Your task to perform on an android device: uninstall "VLC for Android" Image 0: 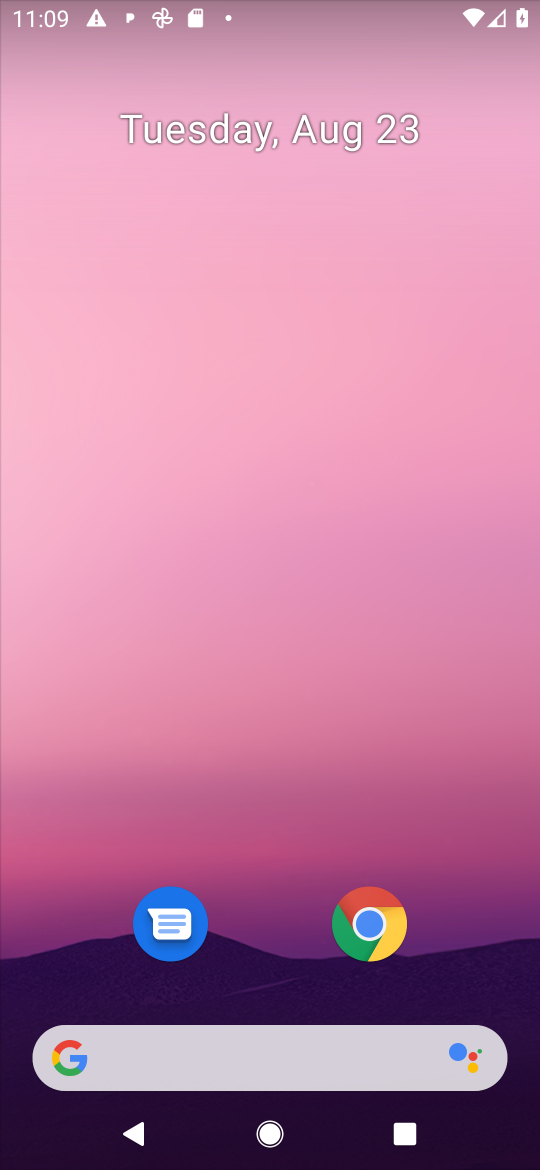
Step 0: press home button
Your task to perform on an android device: uninstall "VLC for Android" Image 1: 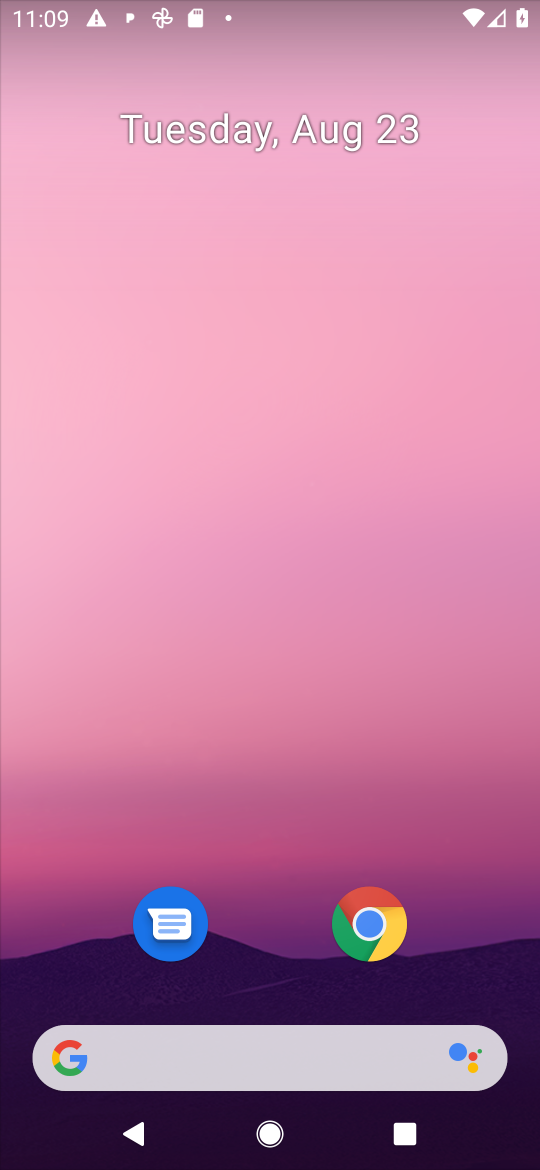
Step 1: drag from (462, 952) to (467, 133)
Your task to perform on an android device: uninstall "VLC for Android" Image 2: 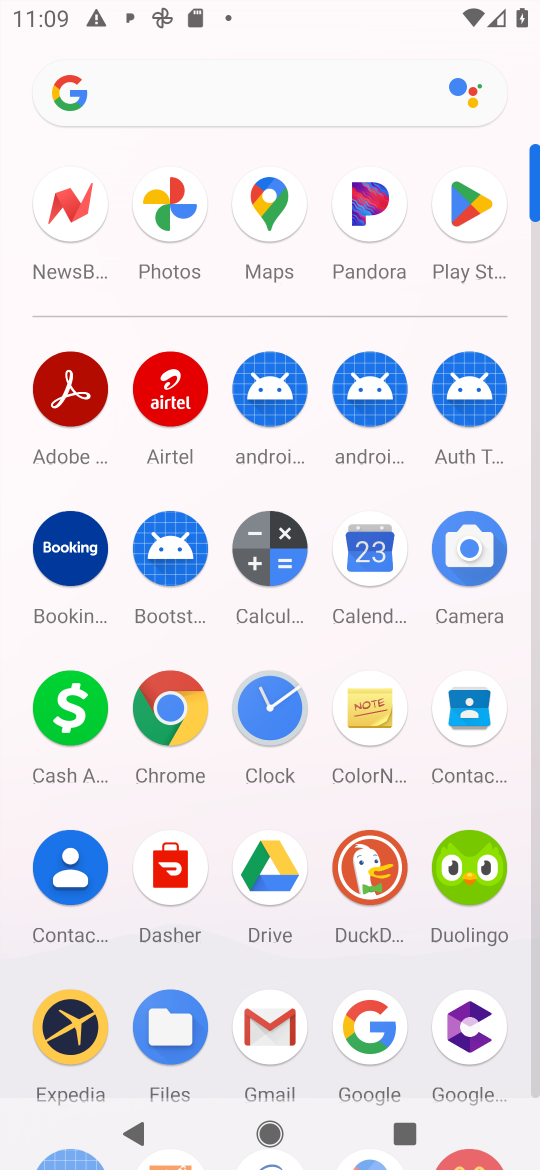
Step 2: click (461, 207)
Your task to perform on an android device: uninstall "VLC for Android" Image 3: 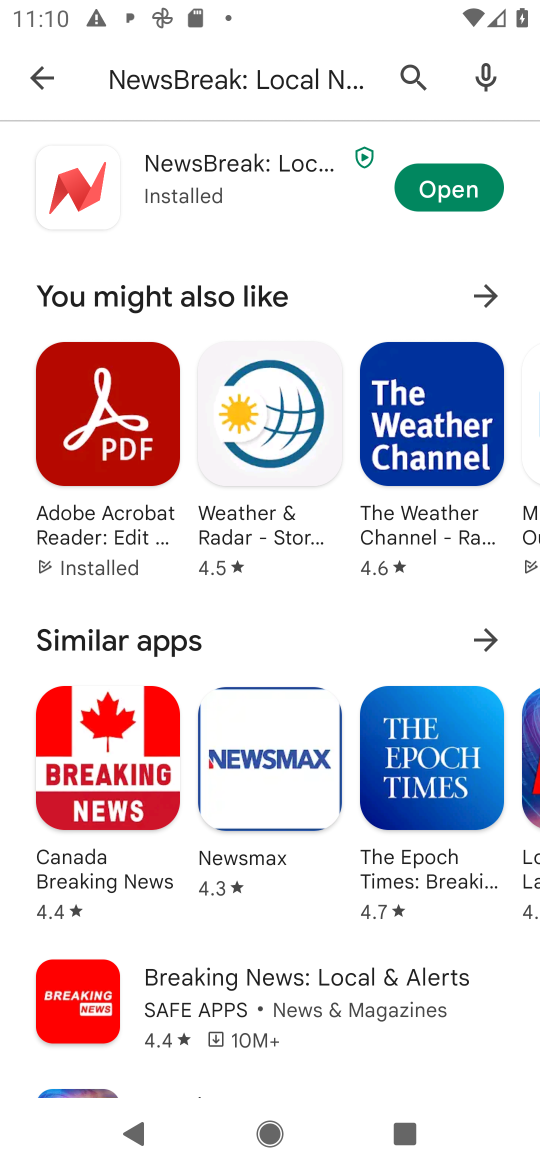
Step 3: press back button
Your task to perform on an android device: uninstall "VLC for Android" Image 4: 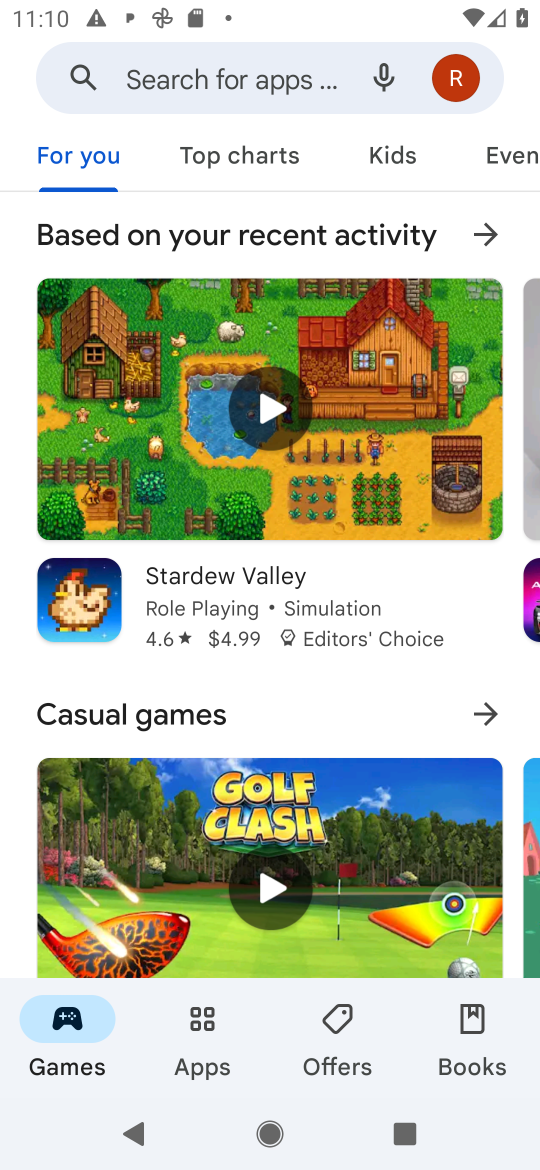
Step 4: click (236, 77)
Your task to perform on an android device: uninstall "VLC for Android" Image 5: 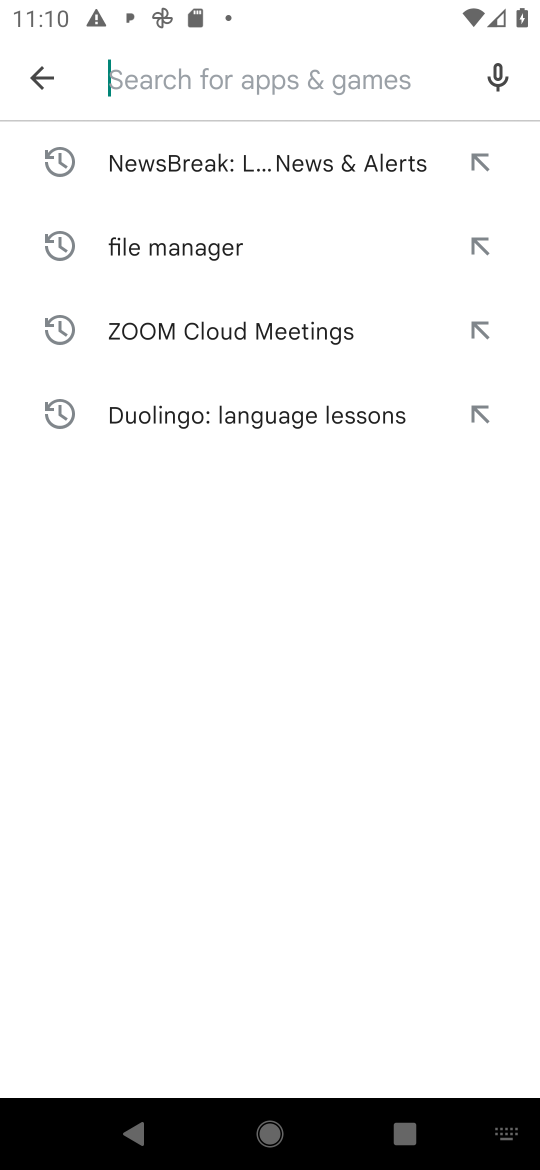
Step 5: press enter
Your task to perform on an android device: uninstall "VLC for Android" Image 6: 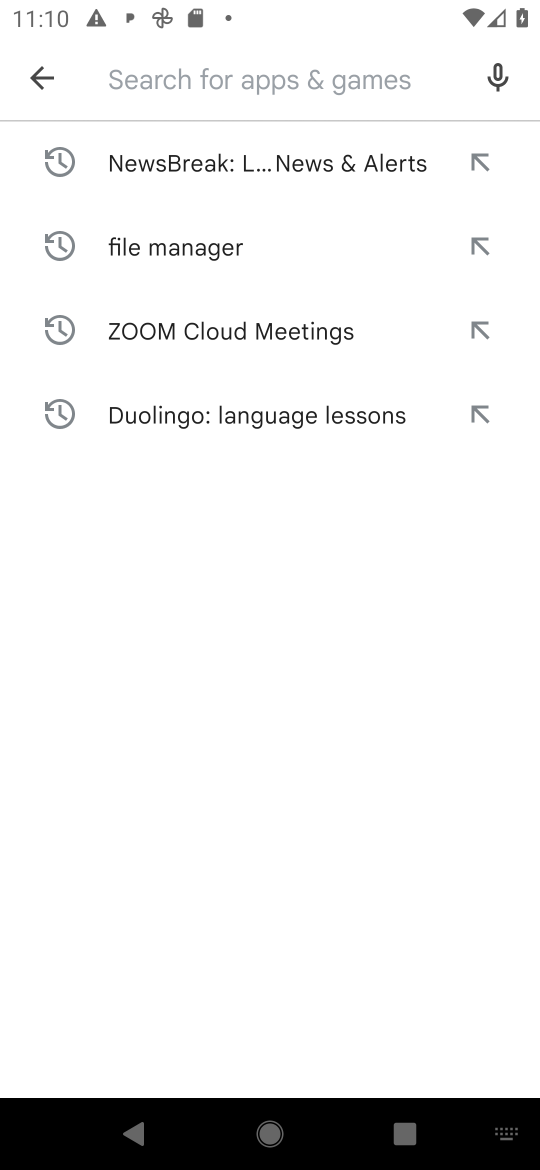
Step 6: type "vlc for android"
Your task to perform on an android device: uninstall "VLC for Android" Image 7: 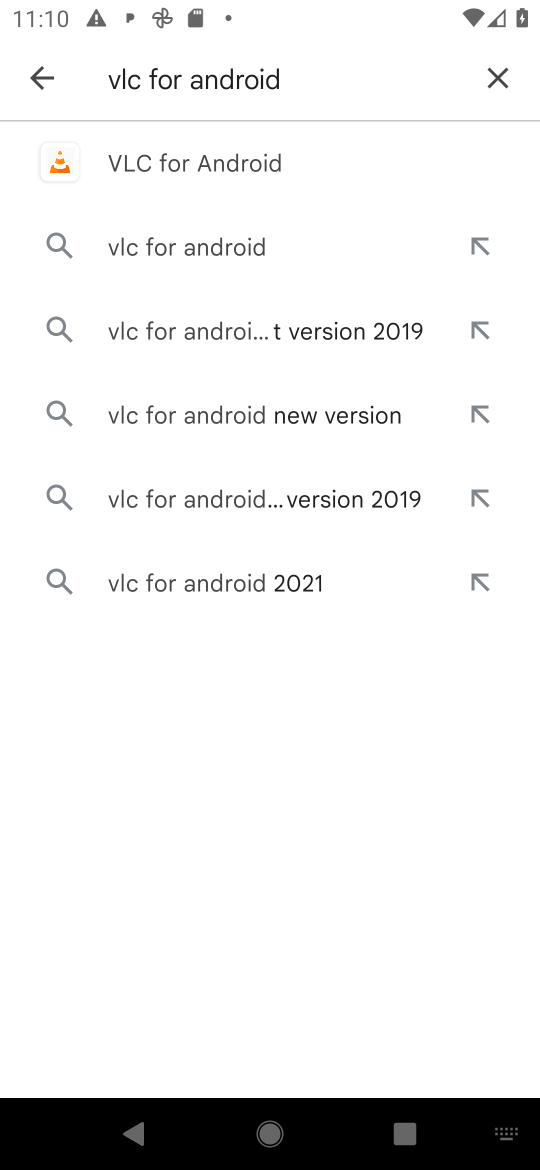
Step 7: click (278, 169)
Your task to perform on an android device: uninstall "VLC for Android" Image 8: 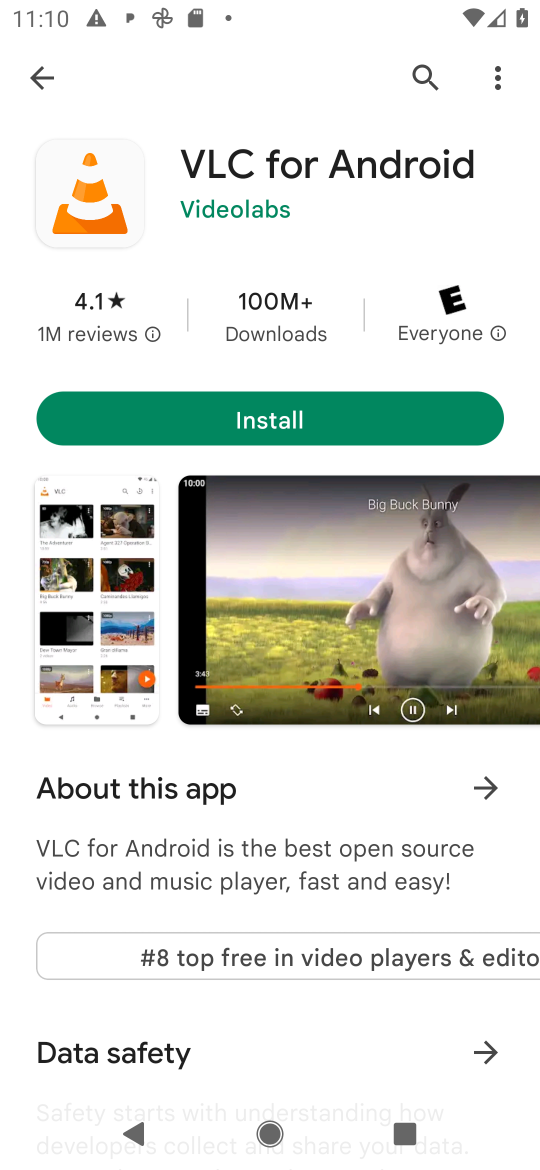
Step 8: task complete